Your task to perform on an android device: open app "Facebook Lite" Image 0: 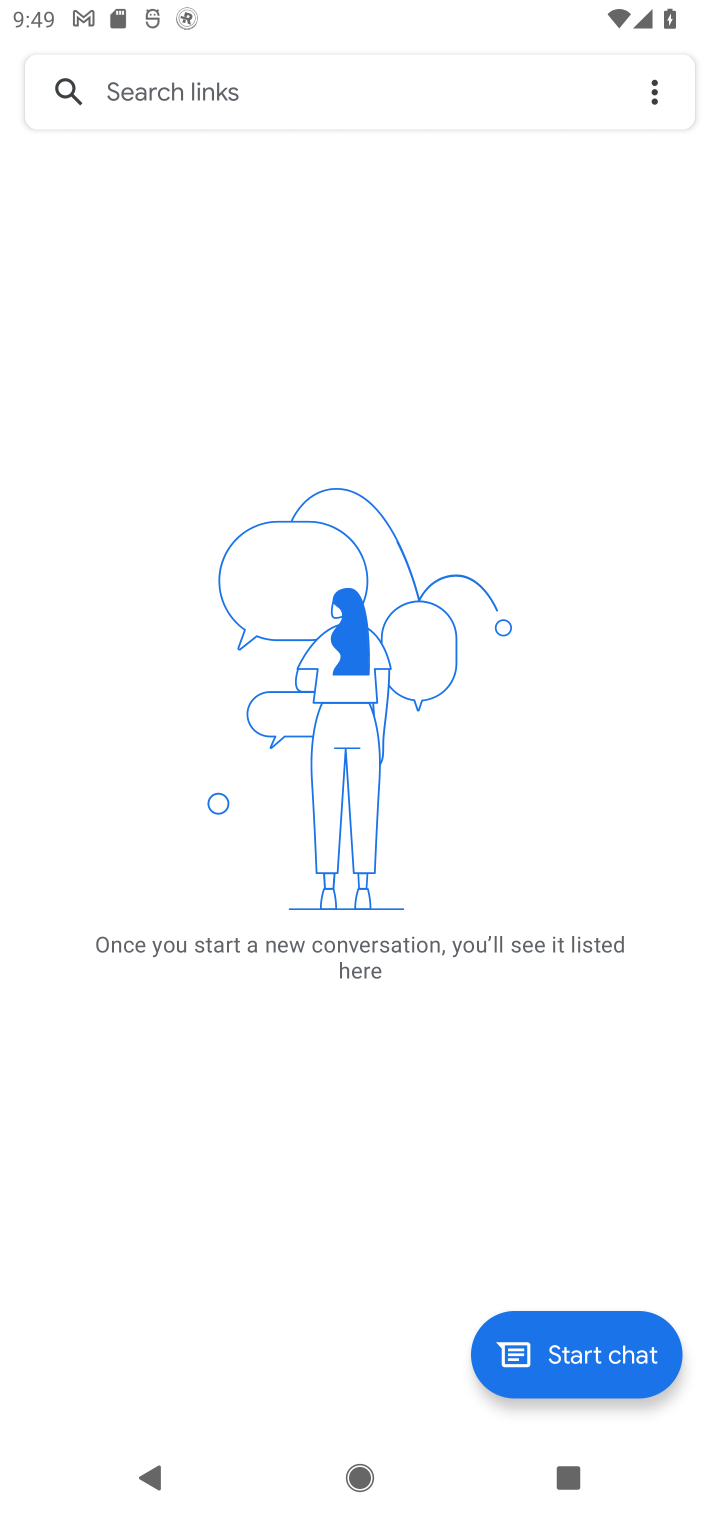
Step 0: press home button
Your task to perform on an android device: open app "Facebook Lite" Image 1: 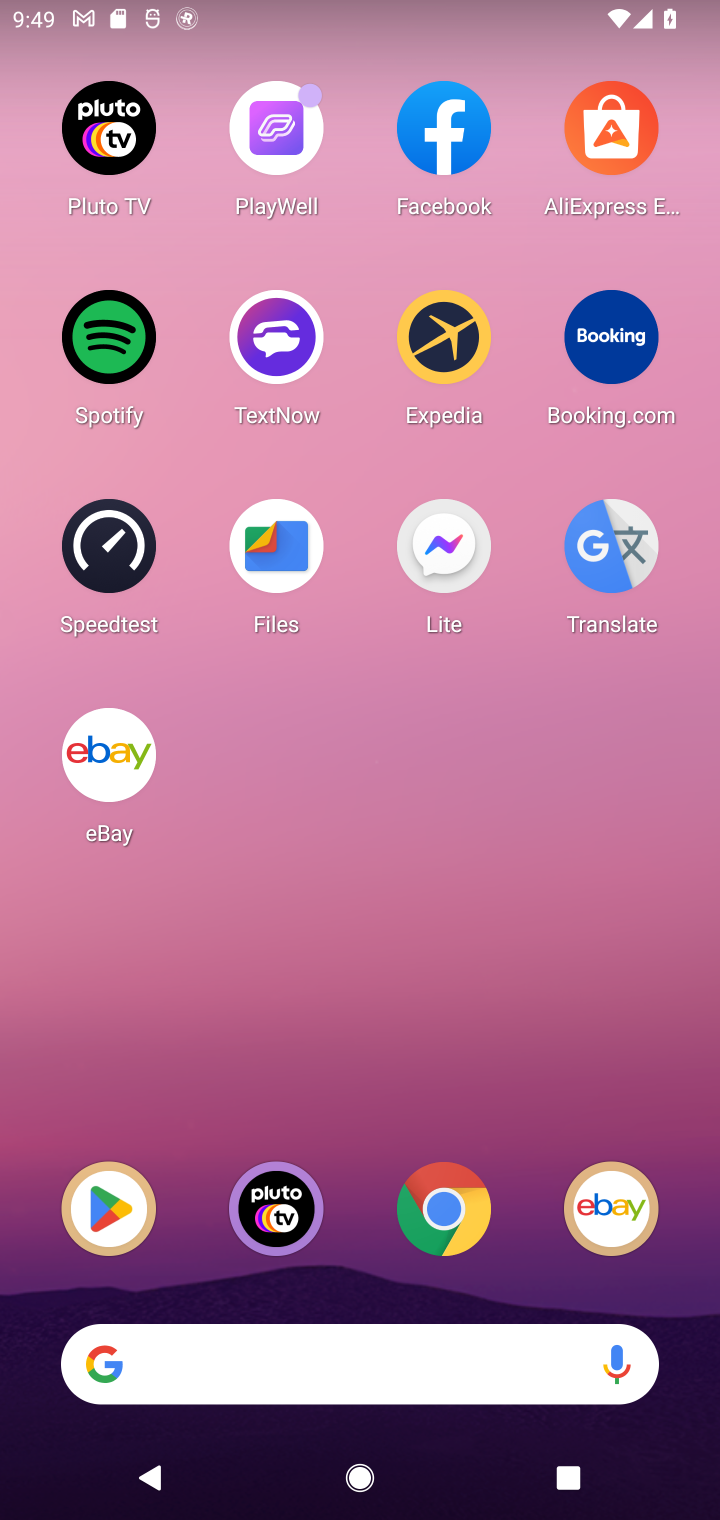
Step 1: drag from (270, 1334) to (455, 423)
Your task to perform on an android device: open app "Facebook Lite" Image 2: 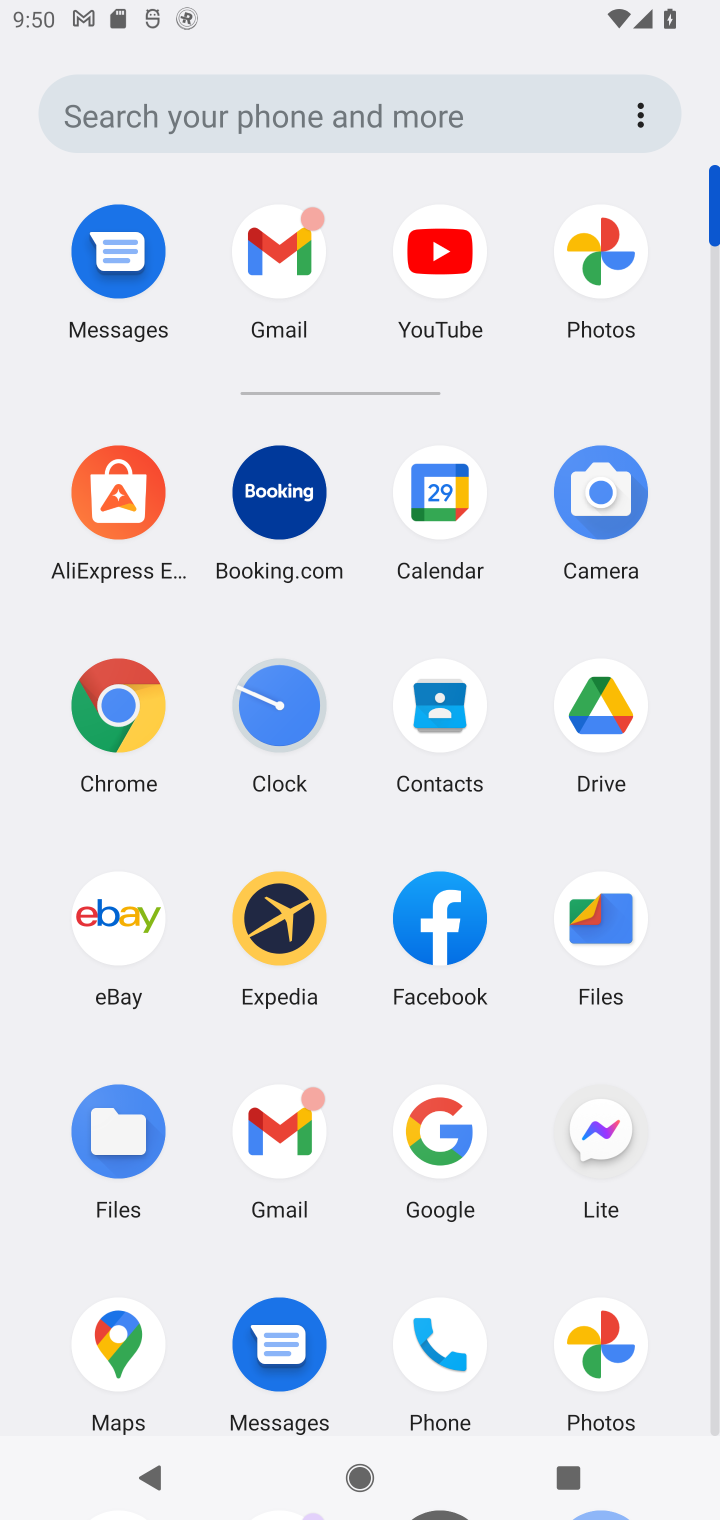
Step 2: drag from (354, 1254) to (339, 649)
Your task to perform on an android device: open app "Facebook Lite" Image 3: 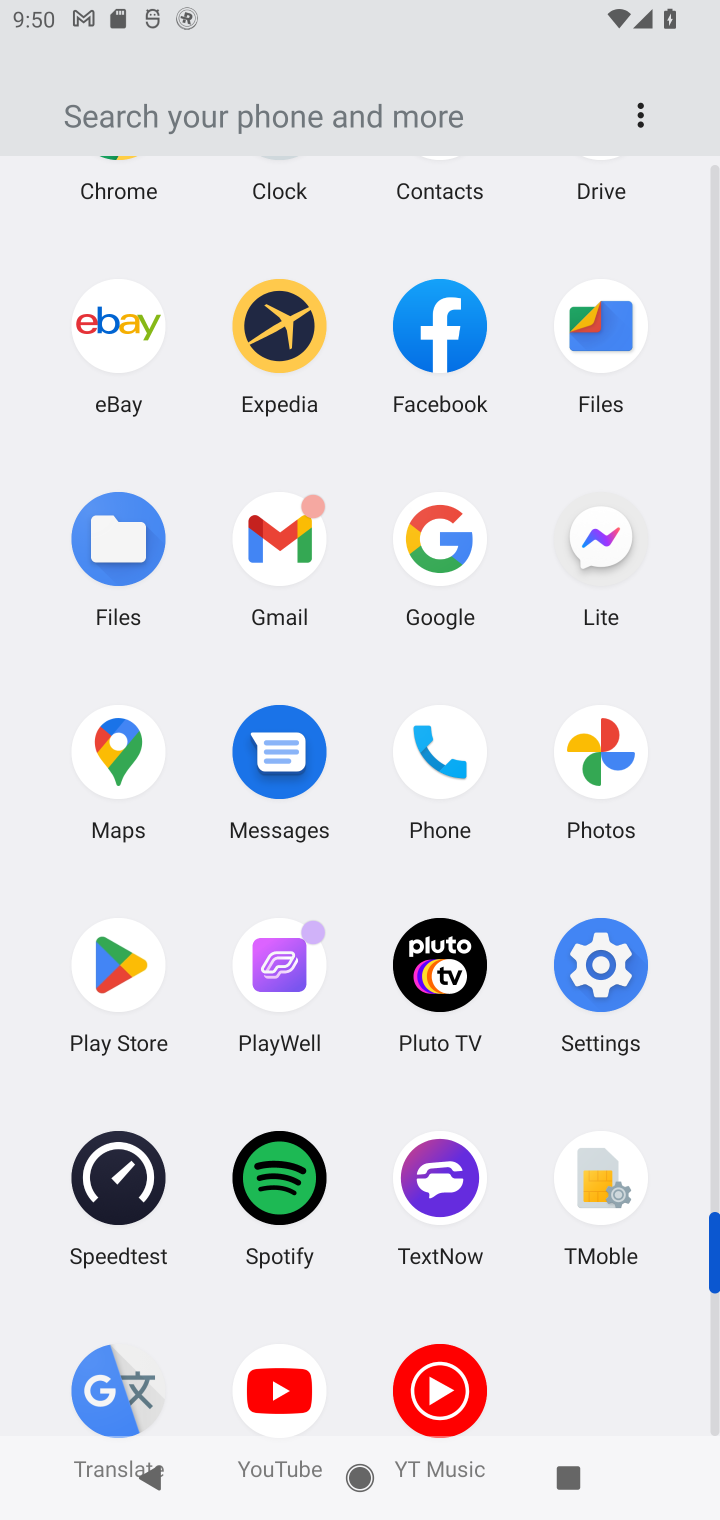
Step 3: click (120, 966)
Your task to perform on an android device: open app "Facebook Lite" Image 4: 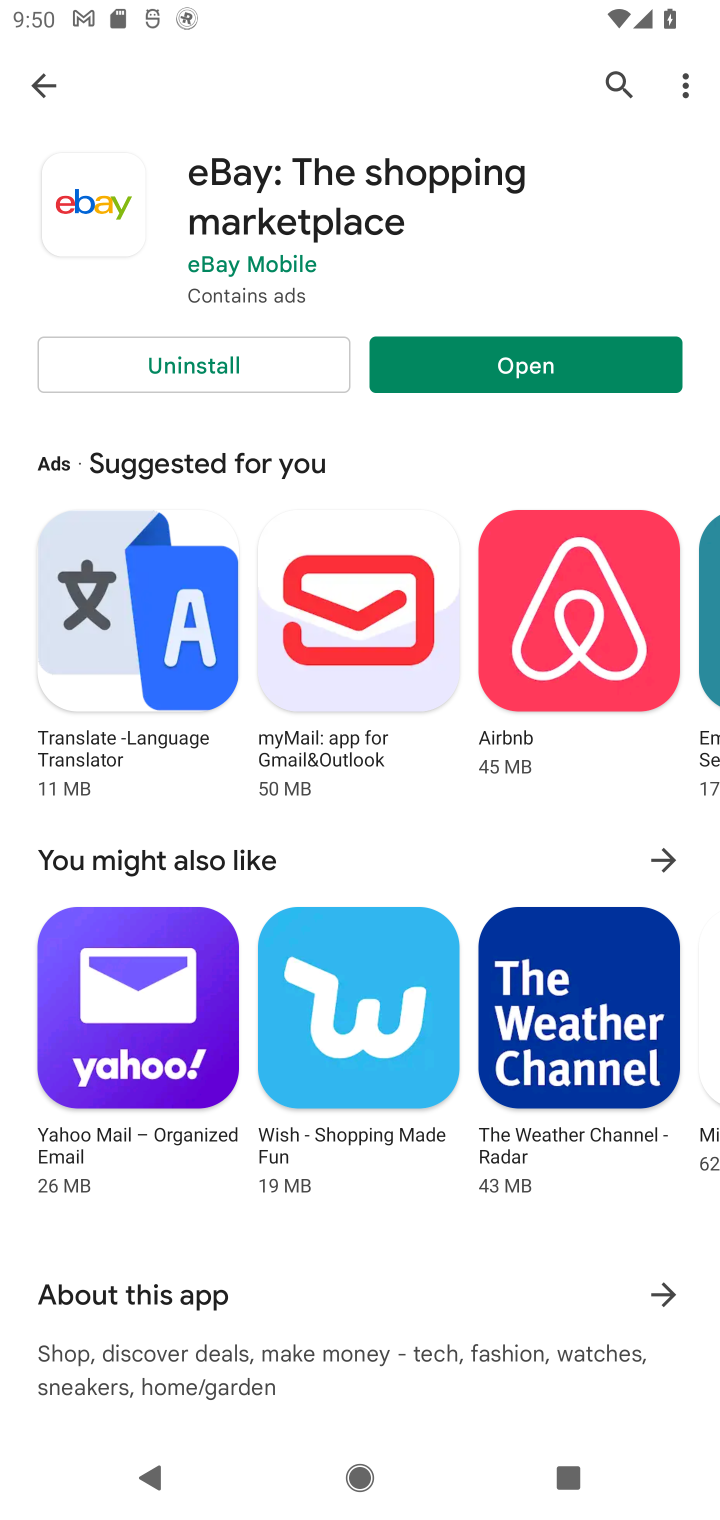
Step 4: click (617, 83)
Your task to perform on an android device: open app "Facebook Lite" Image 5: 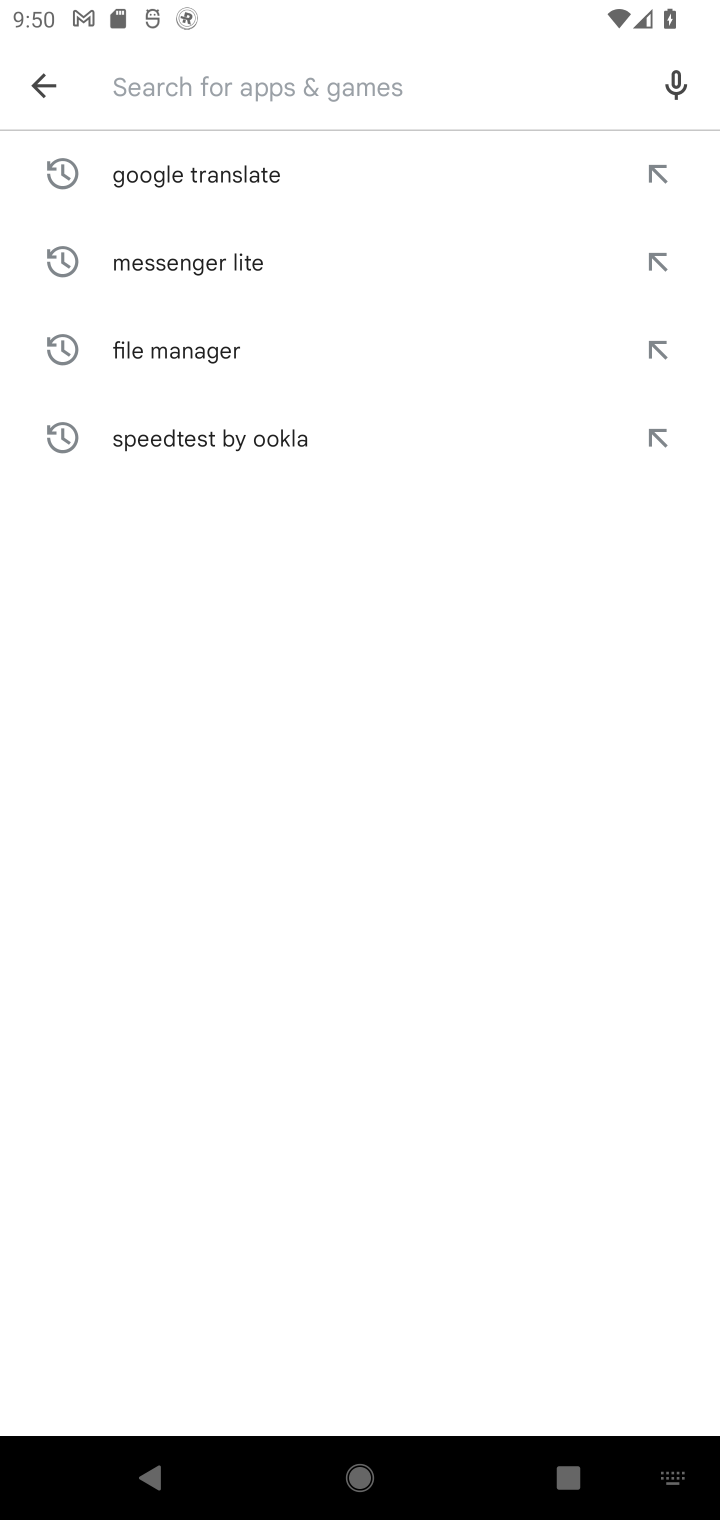
Step 5: type "Facebook Lite"
Your task to perform on an android device: open app "Facebook Lite" Image 6: 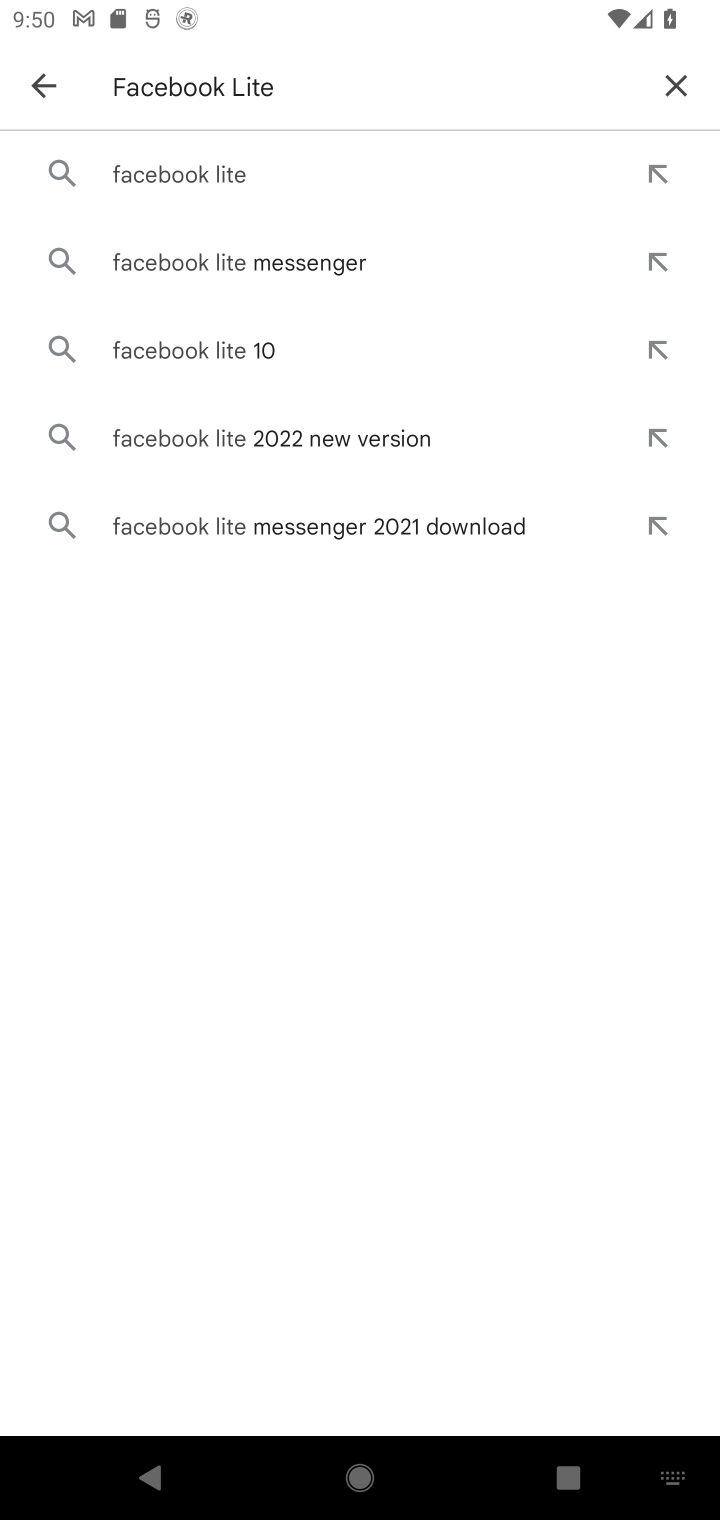
Step 6: click (182, 179)
Your task to perform on an android device: open app "Facebook Lite" Image 7: 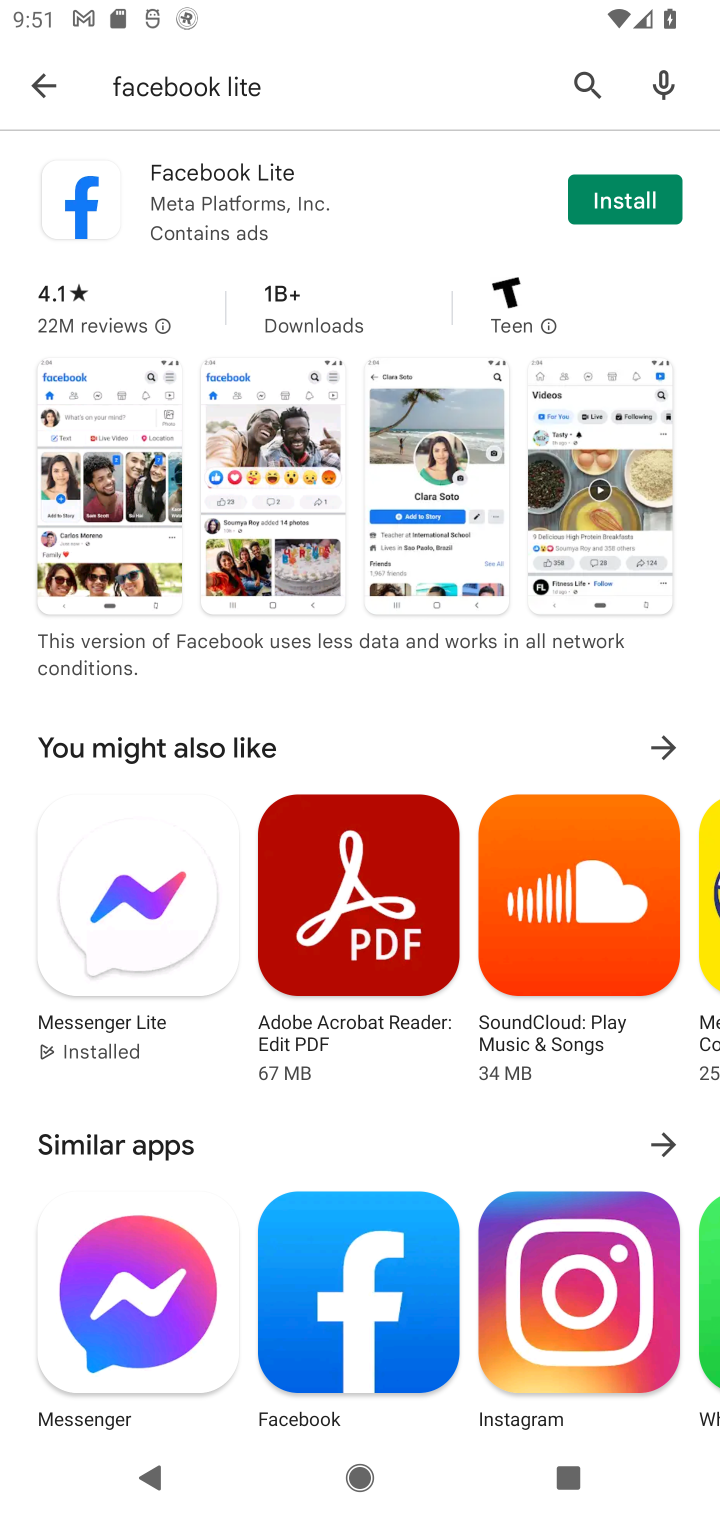
Step 7: task complete